Your task to perform on an android device: turn pop-ups on in chrome Image 0: 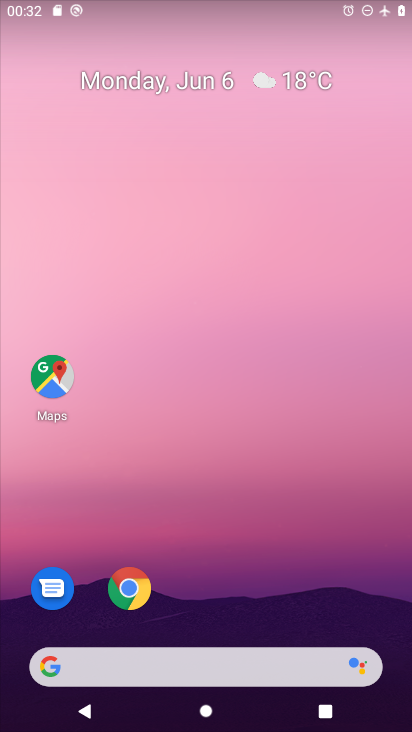
Step 0: drag from (372, 593) to (355, 261)
Your task to perform on an android device: turn pop-ups on in chrome Image 1: 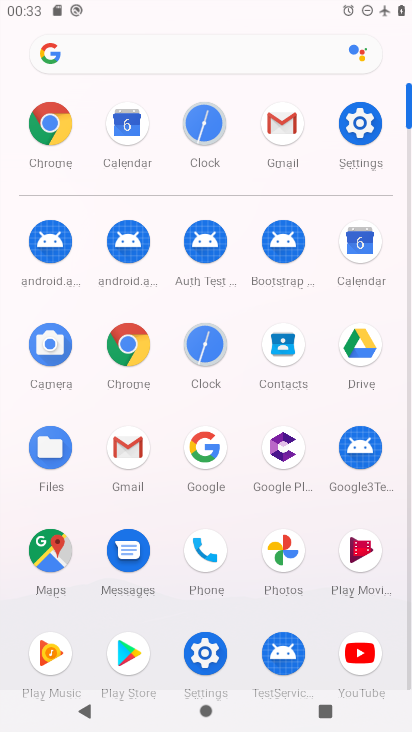
Step 1: click (123, 361)
Your task to perform on an android device: turn pop-ups on in chrome Image 2: 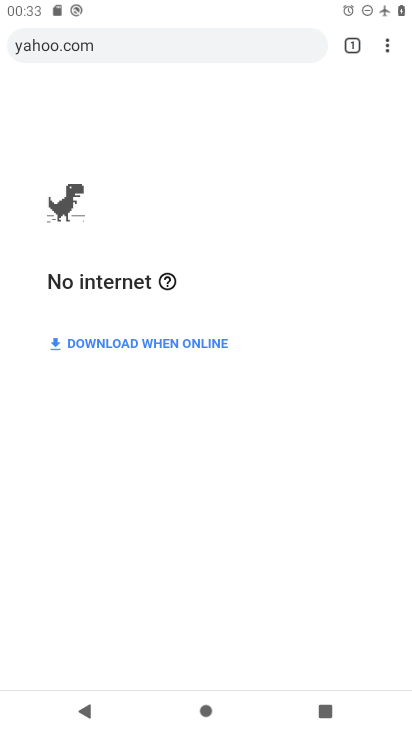
Step 2: click (388, 55)
Your task to perform on an android device: turn pop-ups on in chrome Image 3: 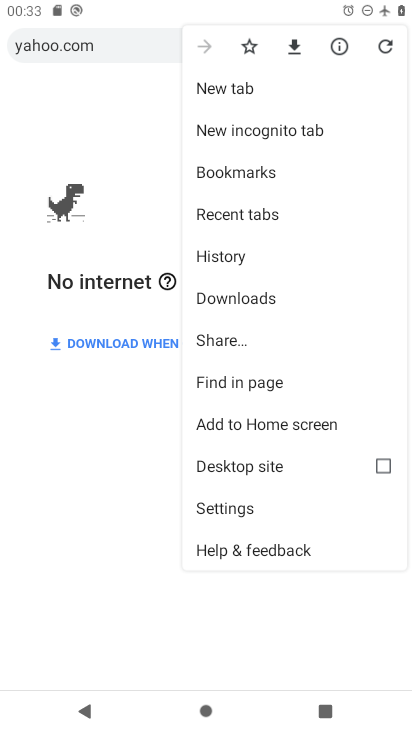
Step 3: click (273, 509)
Your task to perform on an android device: turn pop-ups on in chrome Image 4: 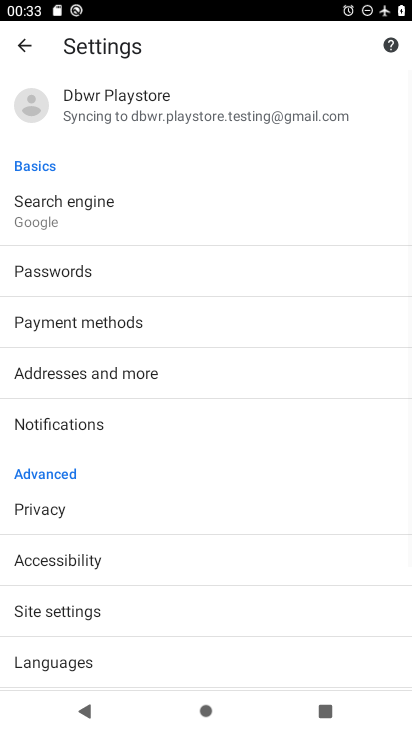
Step 4: drag from (266, 516) to (269, 439)
Your task to perform on an android device: turn pop-ups on in chrome Image 5: 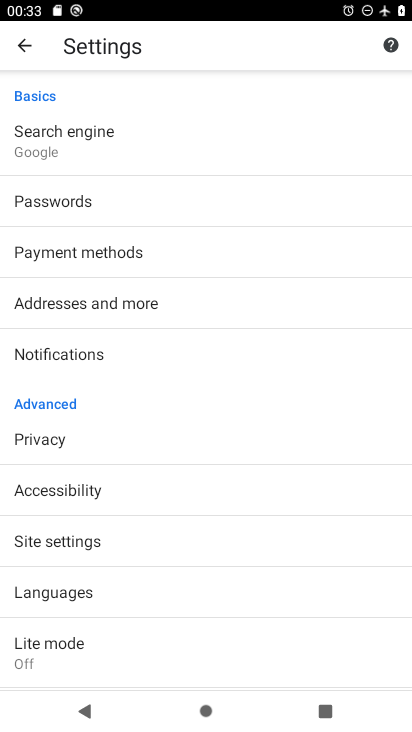
Step 5: click (274, 550)
Your task to perform on an android device: turn pop-ups on in chrome Image 6: 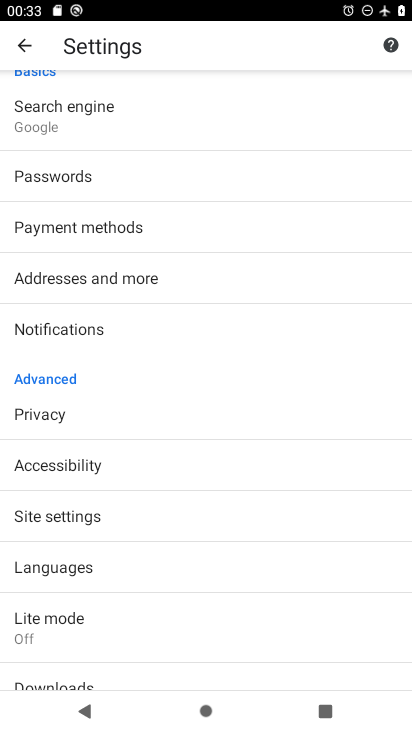
Step 6: drag from (264, 546) to (256, 456)
Your task to perform on an android device: turn pop-ups on in chrome Image 7: 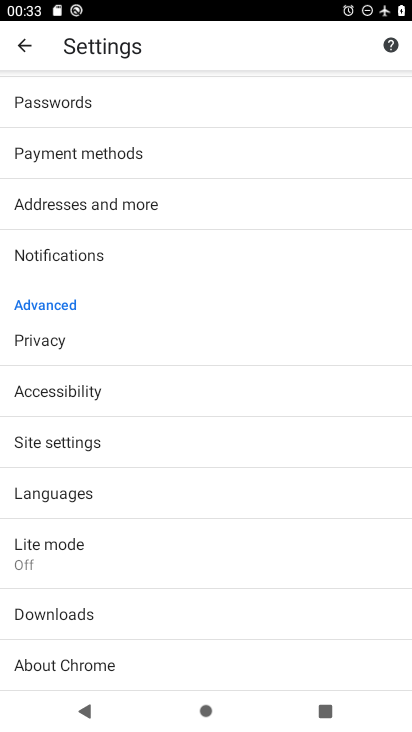
Step 7: drag from (253, 571) to (248, 519)
Your task to perform on an android device: turn pop-ups on in chrome Image 8: 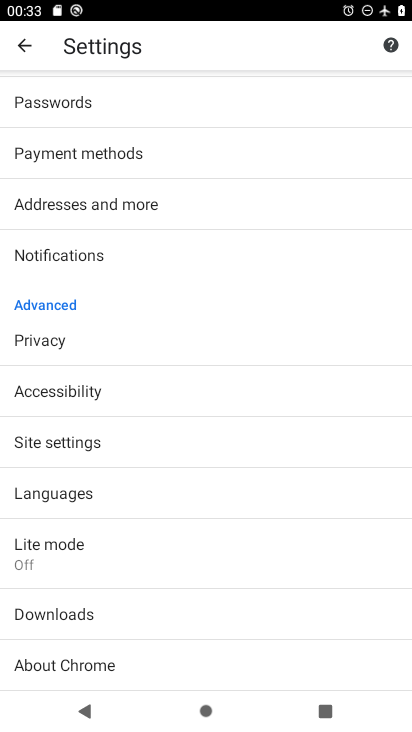
Step 8: drag from (247, 543) to (247, 473)
Your task to perform on an android device: turn pop-ups on in chrome Image 9: 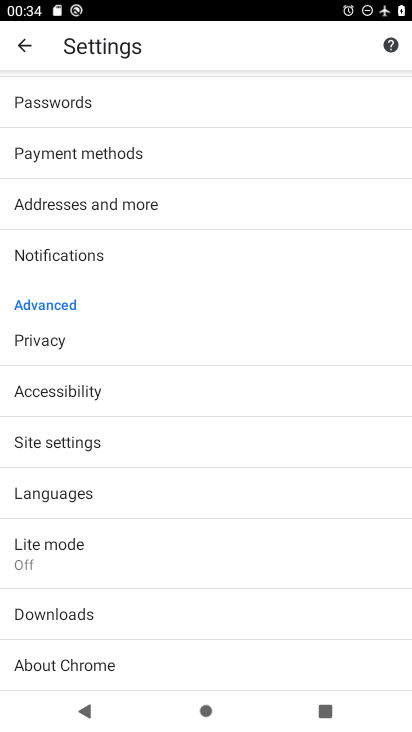
Step 9: drag from (267, 529) to (255, 435)
Your task to perform on an android device: turn pop-ups on in chrome Image 10: 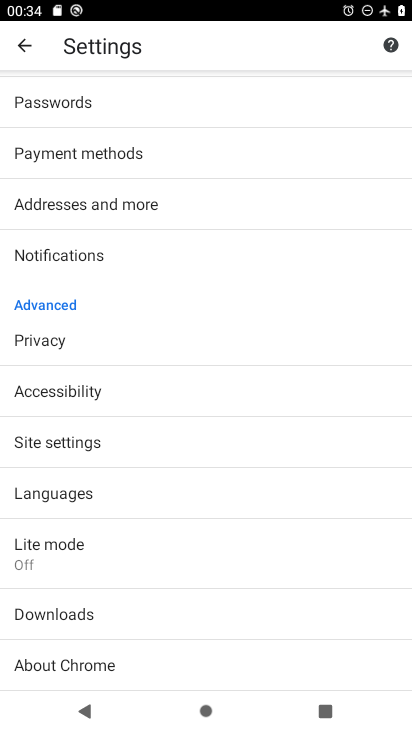
Step 10: click (139, 453)
Your task to perform on an android device: turn pop-ups on in chrome Image 11: 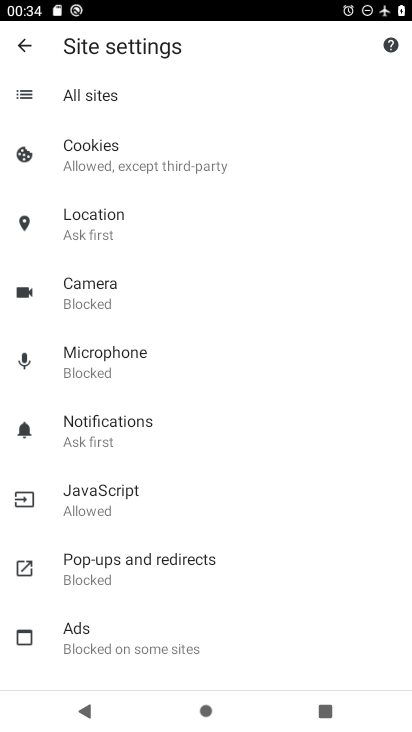
Step 11: drag from (309, 499) to (317, 423)
Your task to perform on an android device: turn pop-ups on in chrome Image 12: 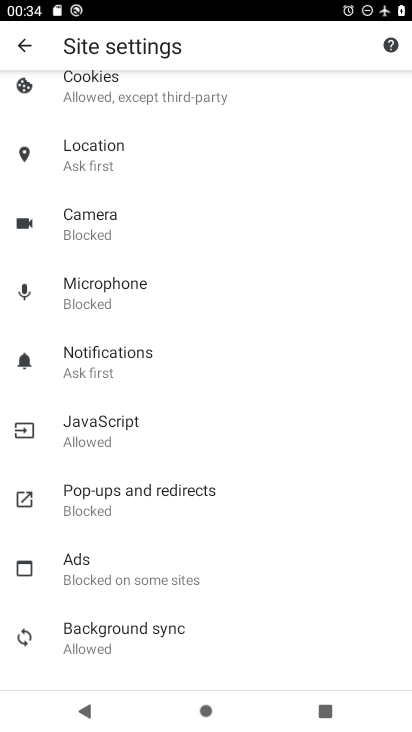
Step 12: click (215, 505)
Your task to perform on an android device: turn pop-ups on in chrome Image 13: 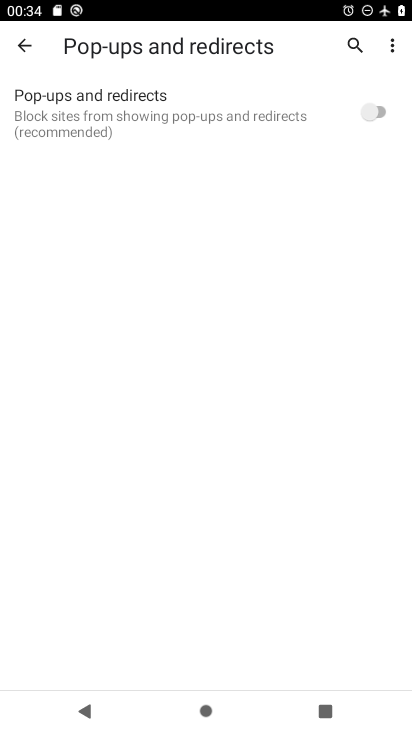
Step 13: click (366, 116)
Your task to perform on an android device: turn pop-ups on in chrome Image 14: 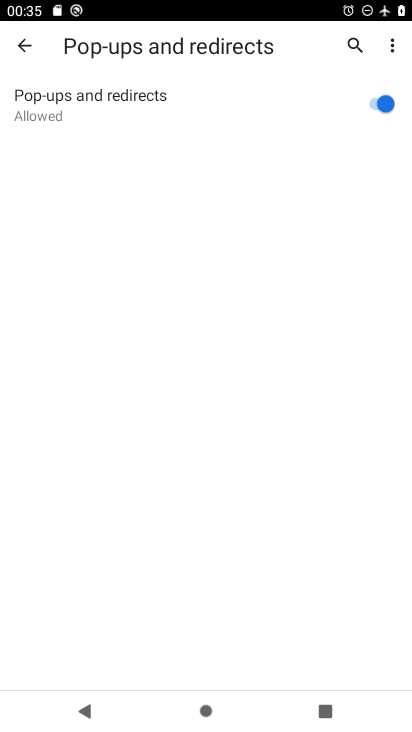
Step 14: task complete